Your task to perform on an android device: Open notification settings Image 0: 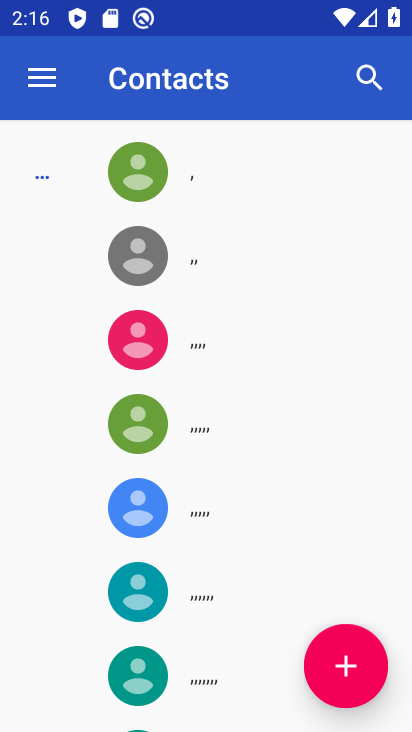
Step 0: press home button
Your task to perform on an android device: Open notification settings Image 1: 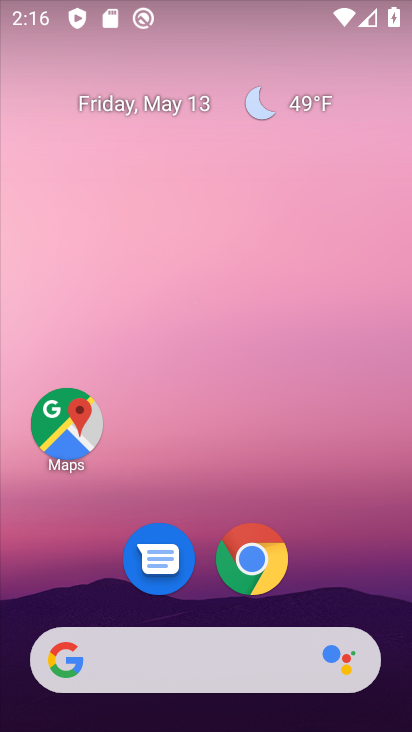
Step 1: drag from (392, 635) to (320, 184)
Your task to perform on an android device: Open notification settings Image 2: 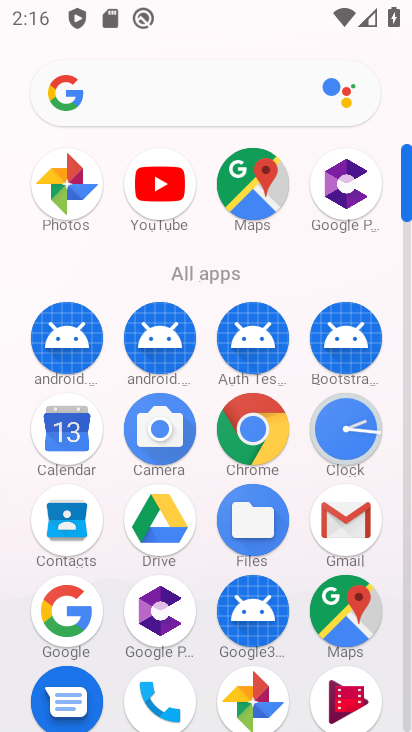
Step 2: click (410, 687)
Your task to perform on an android device: Open notification settings Image 3: 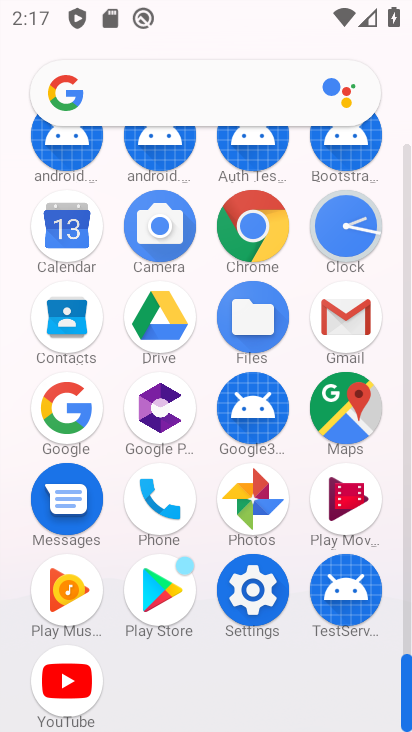
Step 3: click (254, 586)
Your task to perform on an android device: Open notification settings Image 4: 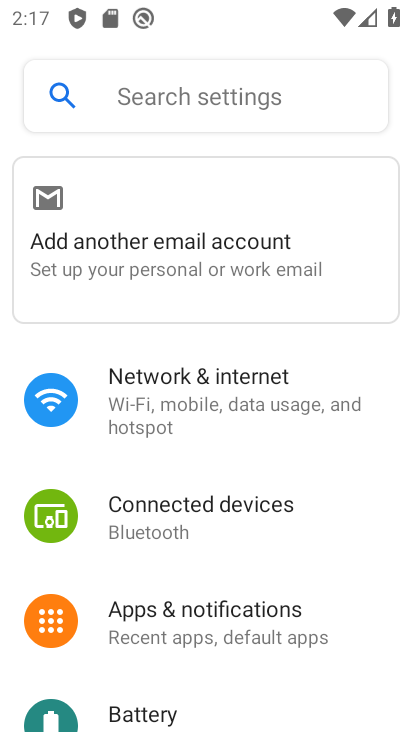
Step 4: click (186, 607)
Your task to perform on an android device: Open notification settings Image 5: 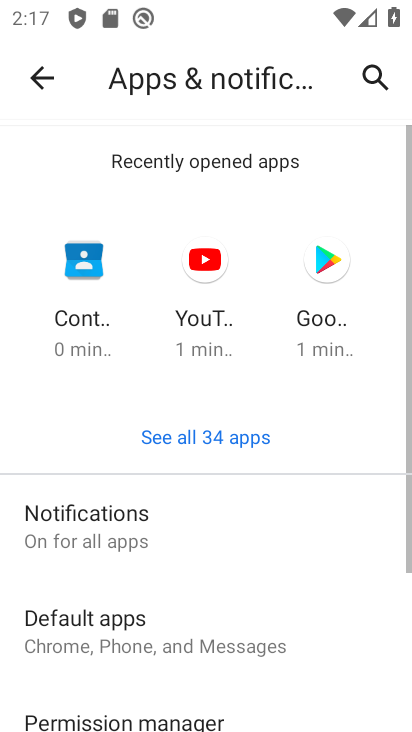
Step 5: drag from (333, 667) to (317, 149)
Your task to perform on an android device: Open notification settings Image 6: 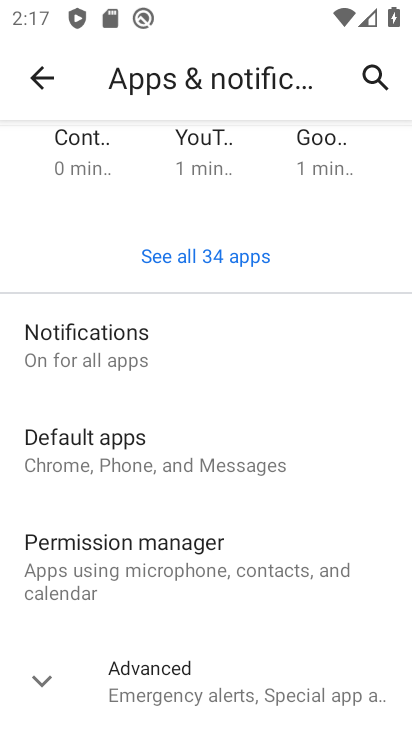
Step 6: click (98, 342)
Your task to perform on an android device: Open notification settings Image 7: 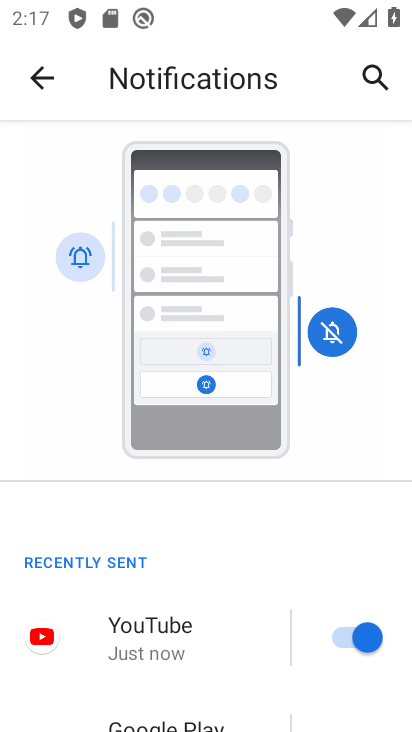
Step 7: drag from (288, 685) to (198, 38)
Your task to perform on an android device: Open notification settings Image 8: 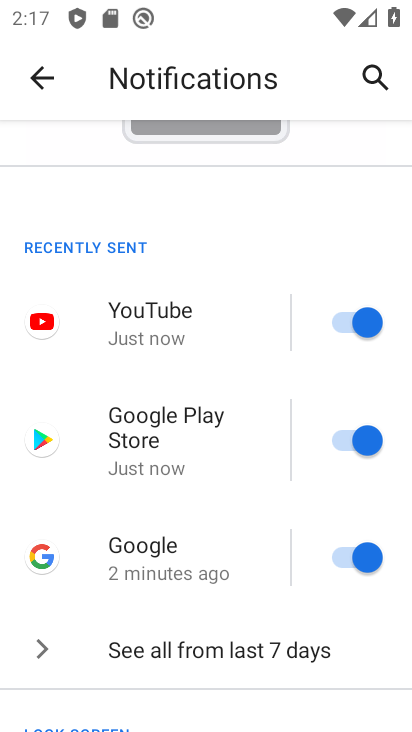
Step 8: drag from (282, 660) to (234, 294)
Your task to perform on an android device: Open notification settings Image 9: 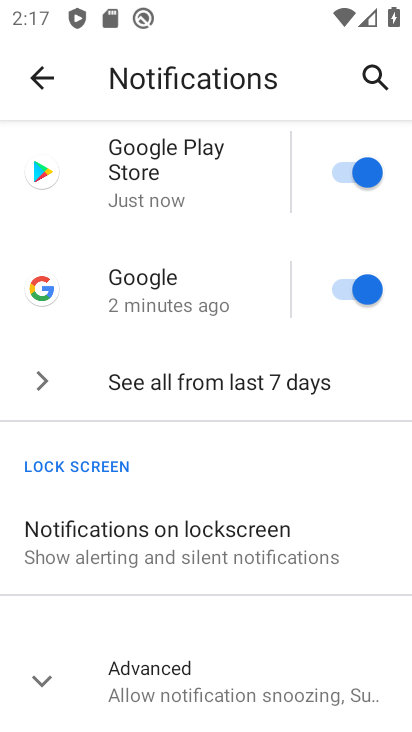
Step 9: click (47, 688)
Your task to perform on an android device: Open notification settings Image 10: 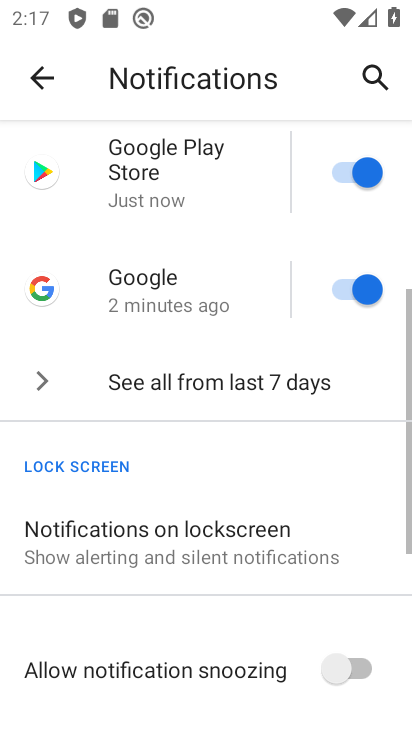
Step 10: task complete